Your task to perform on an android device: Open wifi settings Image 0: 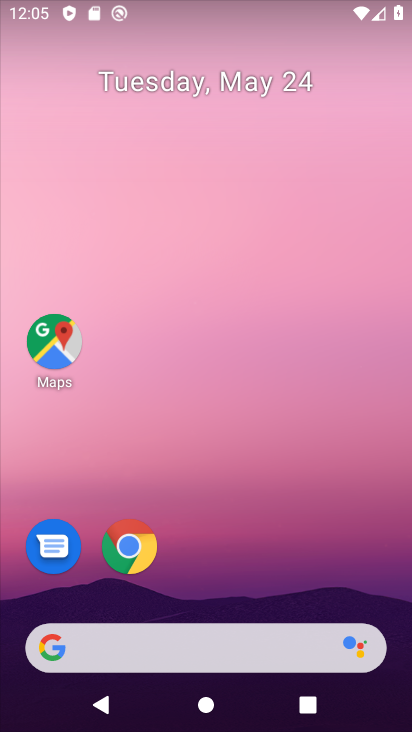
Step 0: drag from (262, 691) to (336, 24)
Your task to perform on an android device: Open wifi settings Image 1: 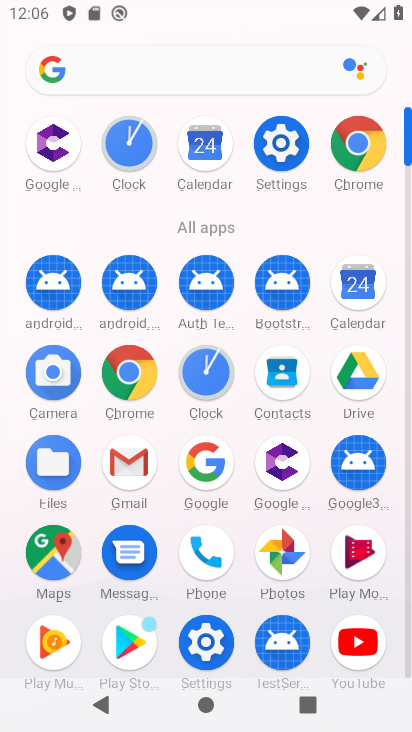
Step 1: click (267, 127)
Your task to perform on an android device: Open wifi settings Image 2: 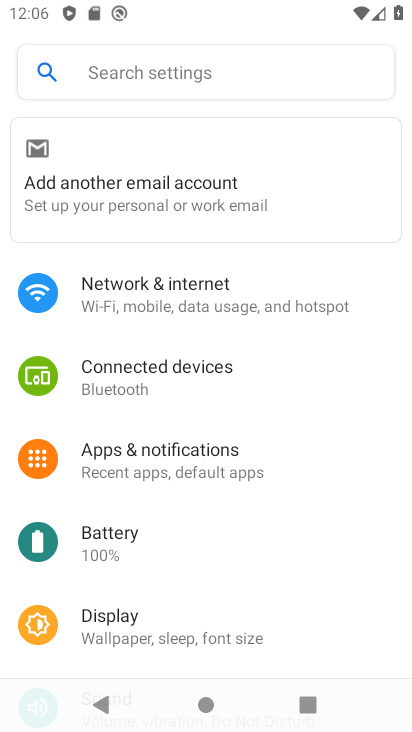
Step 2: click (114, 287)
Your task to perform on an android device: Open wifi settings Image 3: 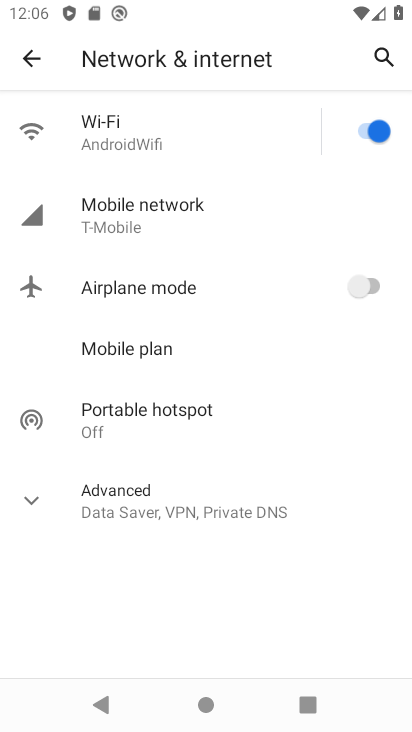
Step 3: click (143, 120)
Your task to perform on an android device: Open wifi settings Image 4: 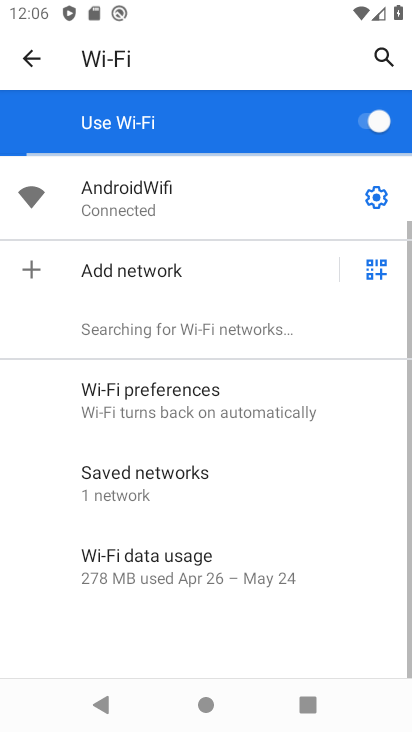
Step 4: task complete